Your task to perform on an android device: Open Google Chrome and open the bookmarks view Image 0: 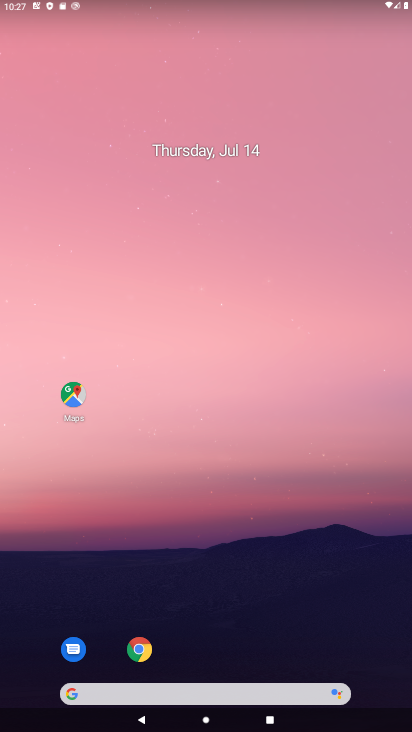
Step 0: click (131, 651)
Your task to perform on an android device: Open Google Chrome and open the bookmarks view Image 1: 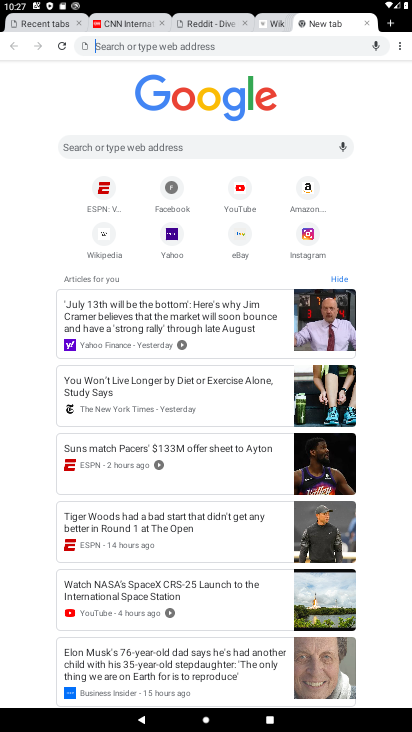
Step 1: click (404, 52)
Your task to perform on an android device: Open Google Chrome and open the bookmarks view Image 2: 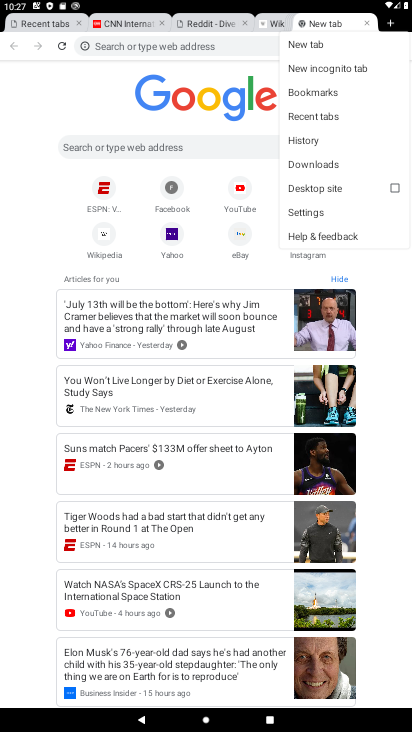
Step 2: click (323, 93)
Your task to perform on an android device: Open Google Chrome and open the bookmarks view Image 3: 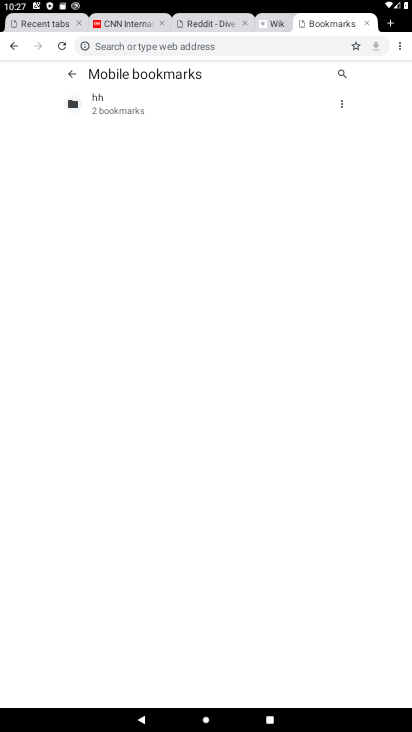
Step 3: task complete